Your task to perform on an android device: Open network settings Image 0: 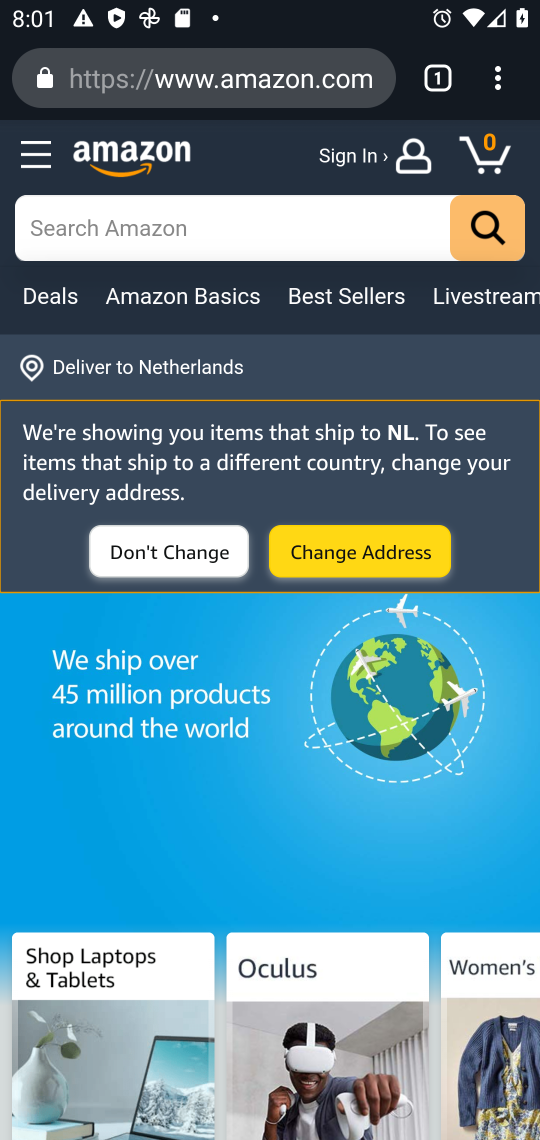
Step 0: press home button
Your task to perform on an android device: Open network settings Image 1: 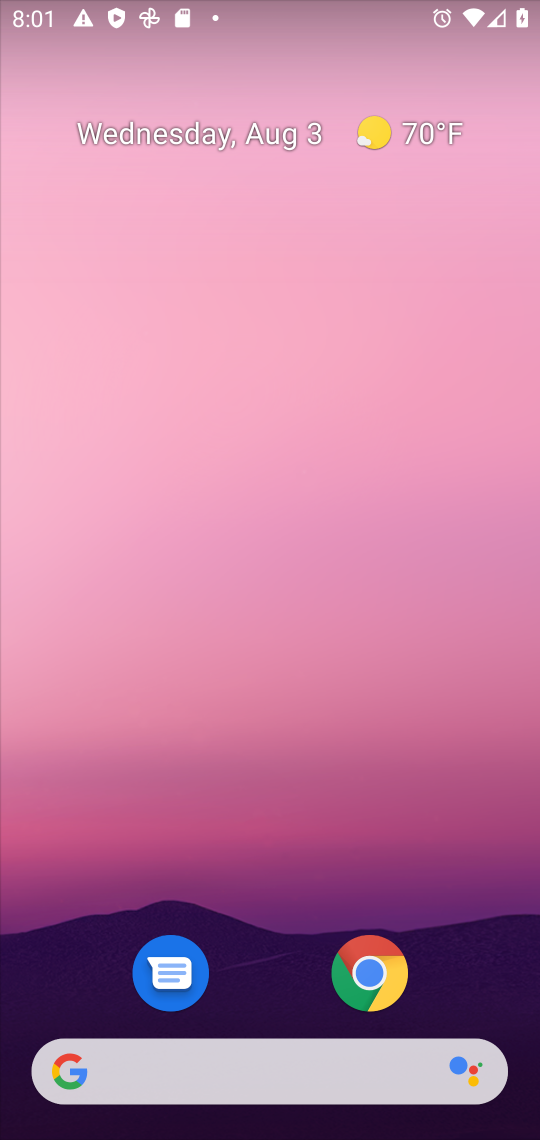
Step 1: click (368, 979)
Your task to perform on an android device: Open network settings Image 2: 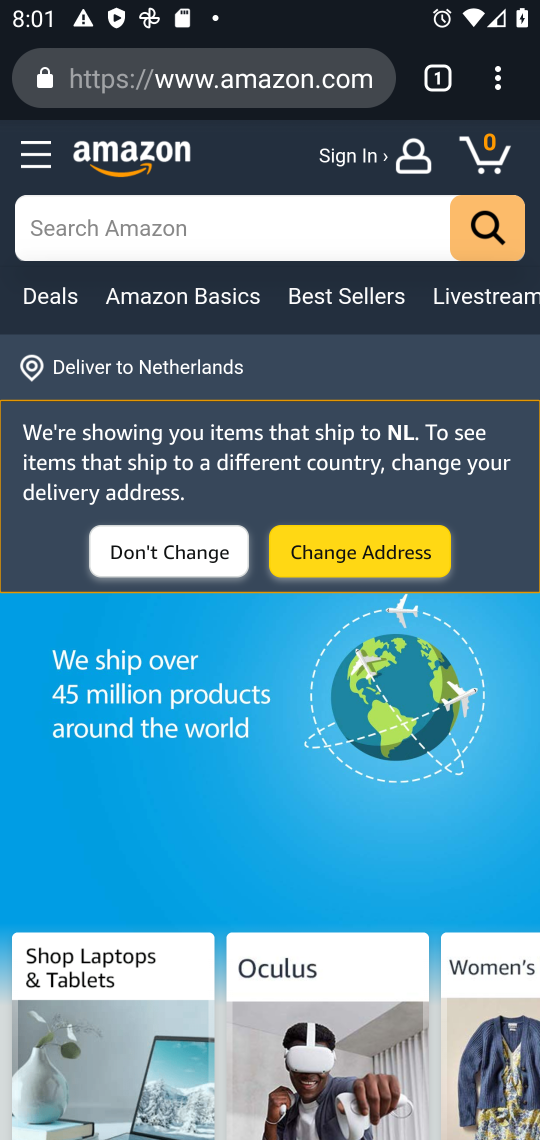
Step 2: press back button
Your task to perform on an android device: Open network settings Image 3: 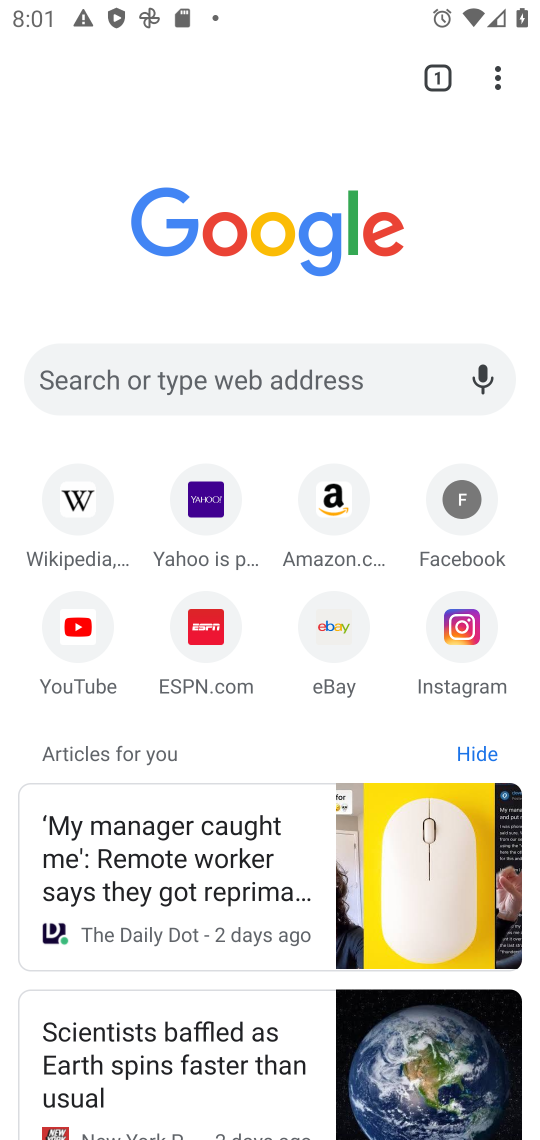
Step 3: press back button
Your task to perform on an android device: Open network settings Image 4: 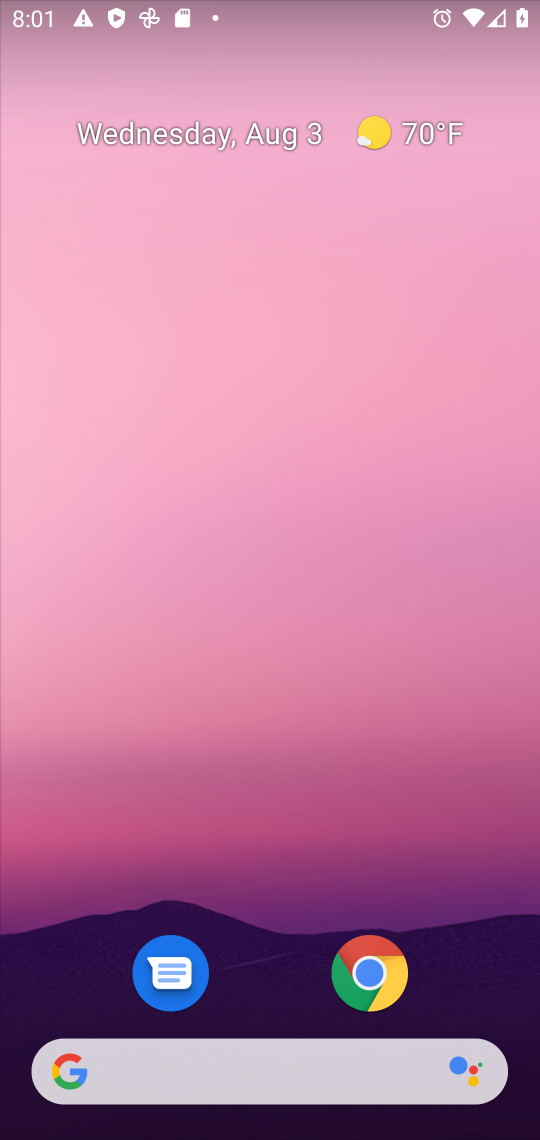
Step 4: drag from (170, 335) to (171, 229)
Your task to perform on an android device: Open network settings Image 5: 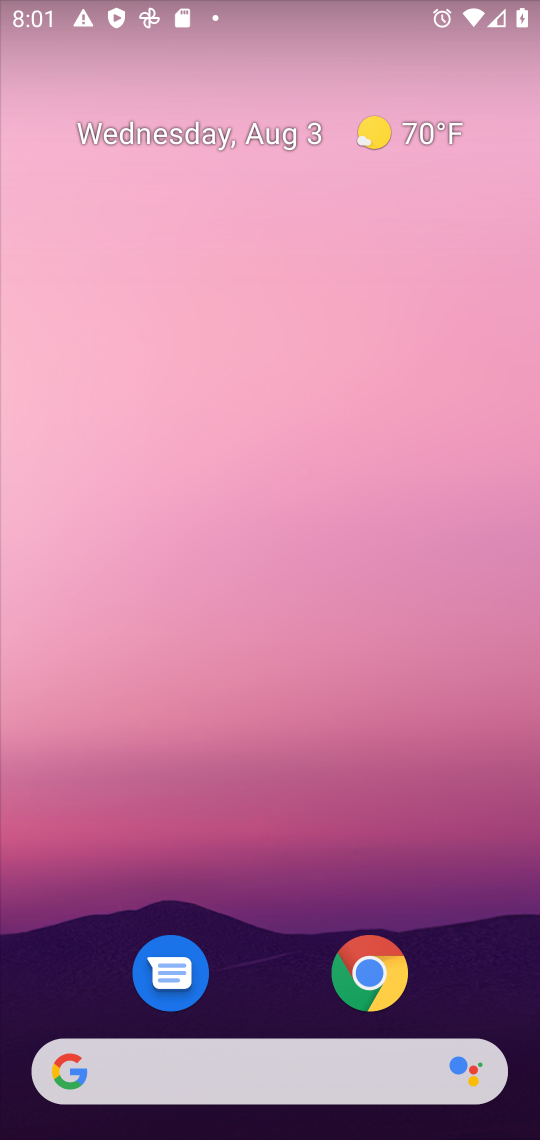
Step 5: click (315, 101)
Your task to perform on an android device: Open network settings Image 6: 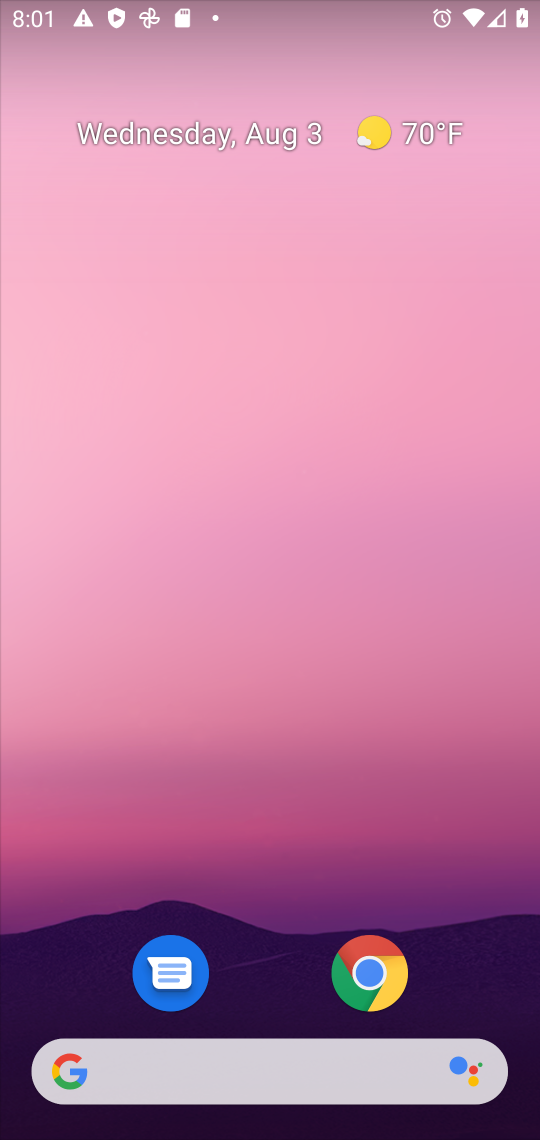
Step 6: drag from (244, 818) to (235, 270)
Your task to perform on an android device: Open network settings Image 7: 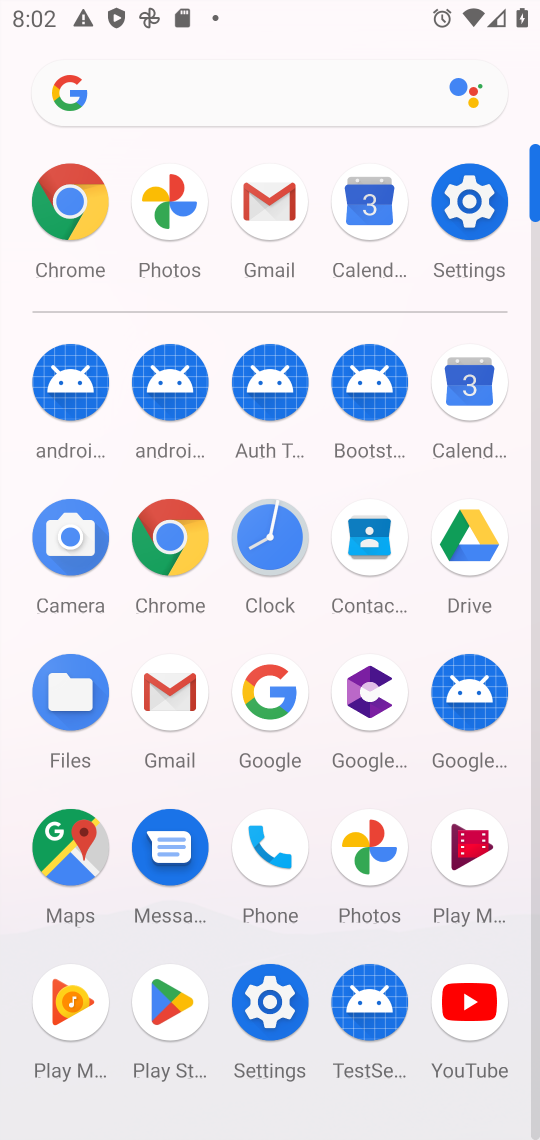
Step 7: click (491, 184)
Your task to perform on an android device: Open network settings Image 8: 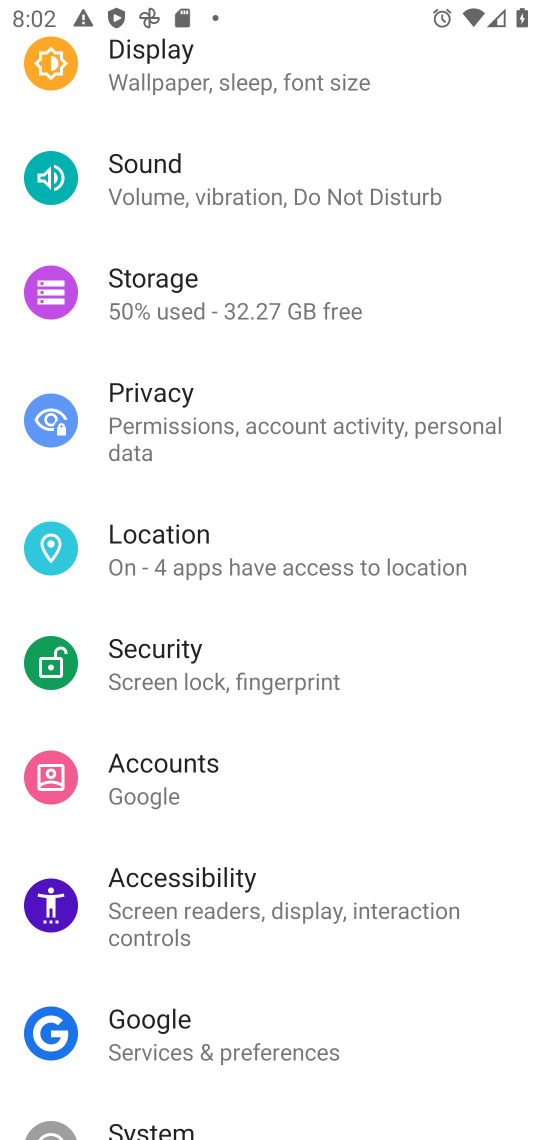
Step 8: drag from (267, 260) to (265, 880)
Your task to perform on an android device: Open network settings Image 9: 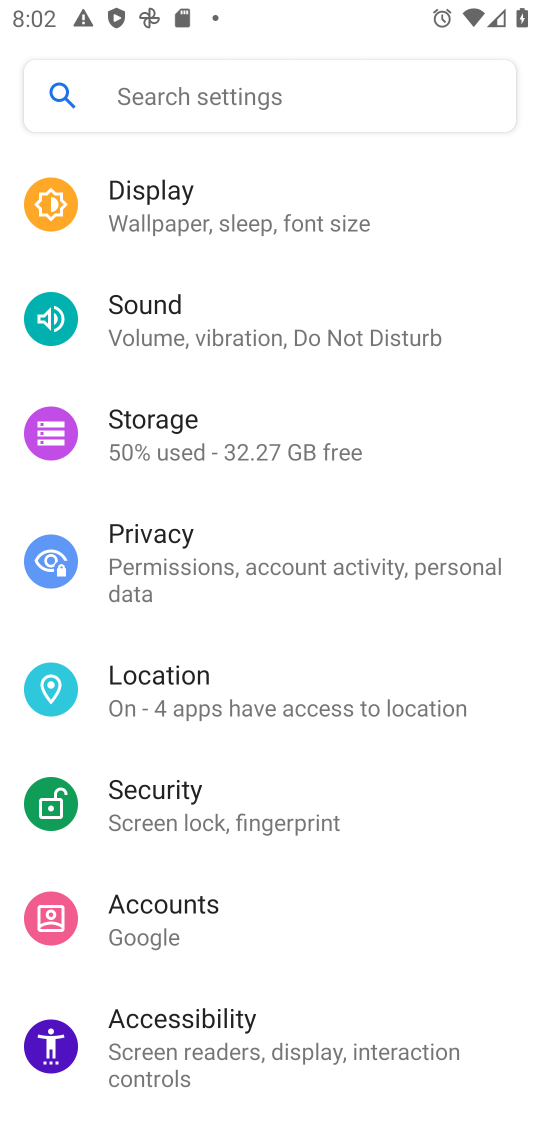
Step 9: drag from (237, 447) to (160, 1075)
Your task to perform on an android device: Open network settings Image 10: 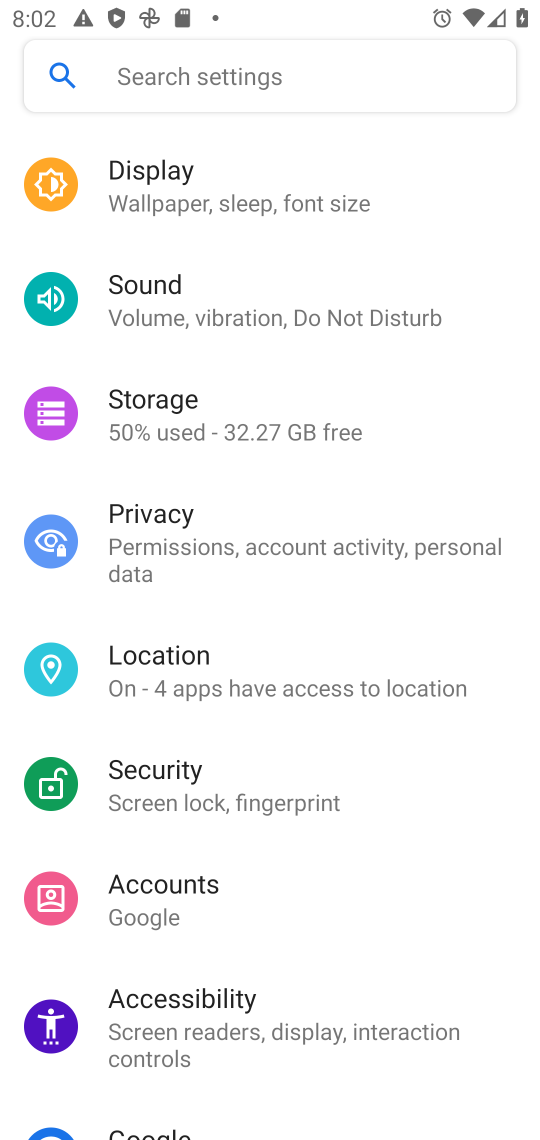
Step 10: click (202, 958)
Your task to perform on an android device: Open network settings Image 11: 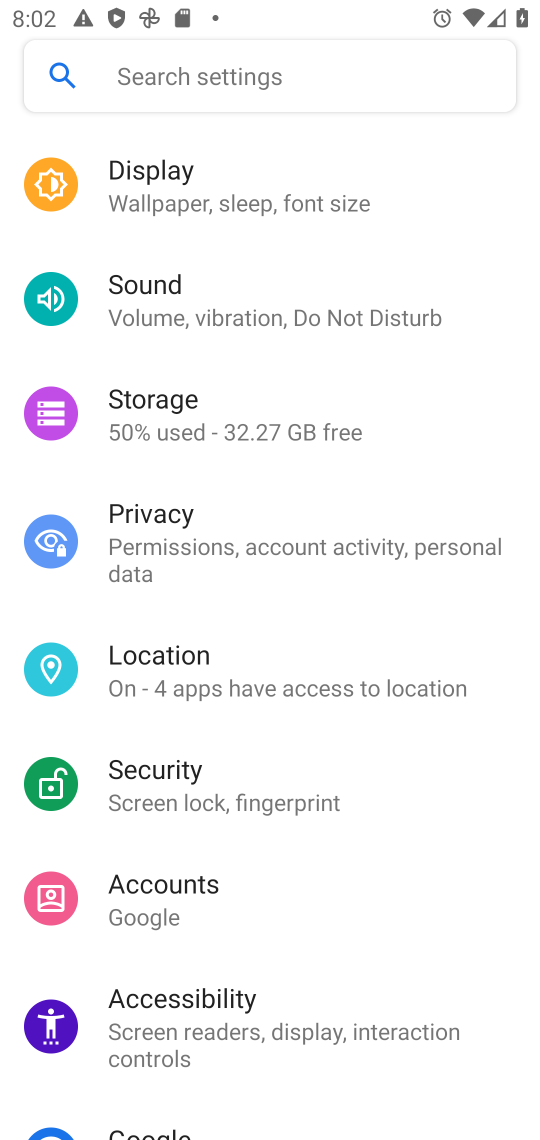
Step 11: drag from (156, 857) to (242, 1019)
Your task to perform on an android device: Open network settings Image 12: 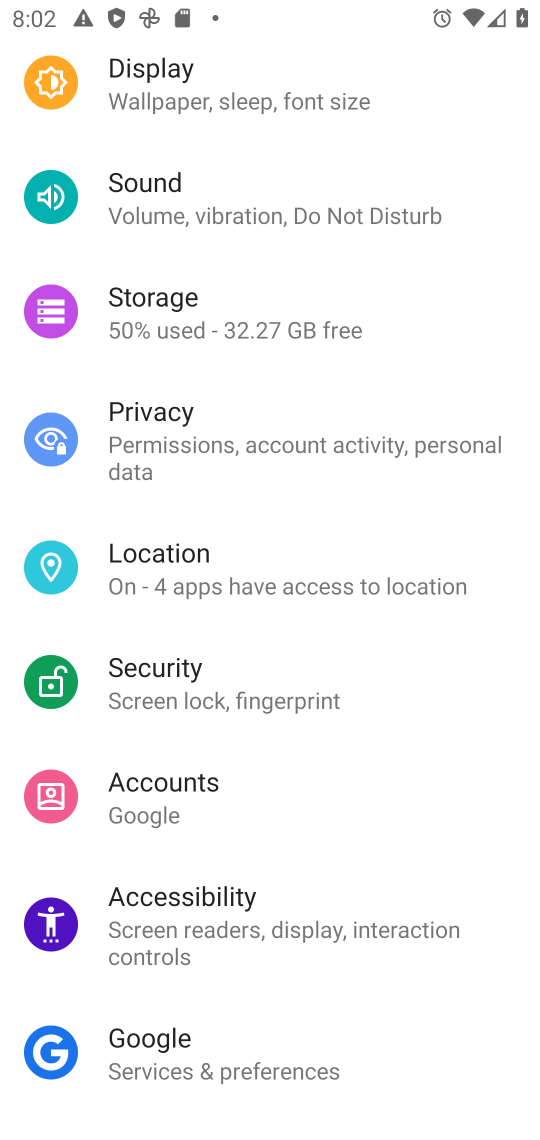
Step 12: drag from (316, 426) to (307, 679)
Your task to perform on an android device: Open network settings Image 13: 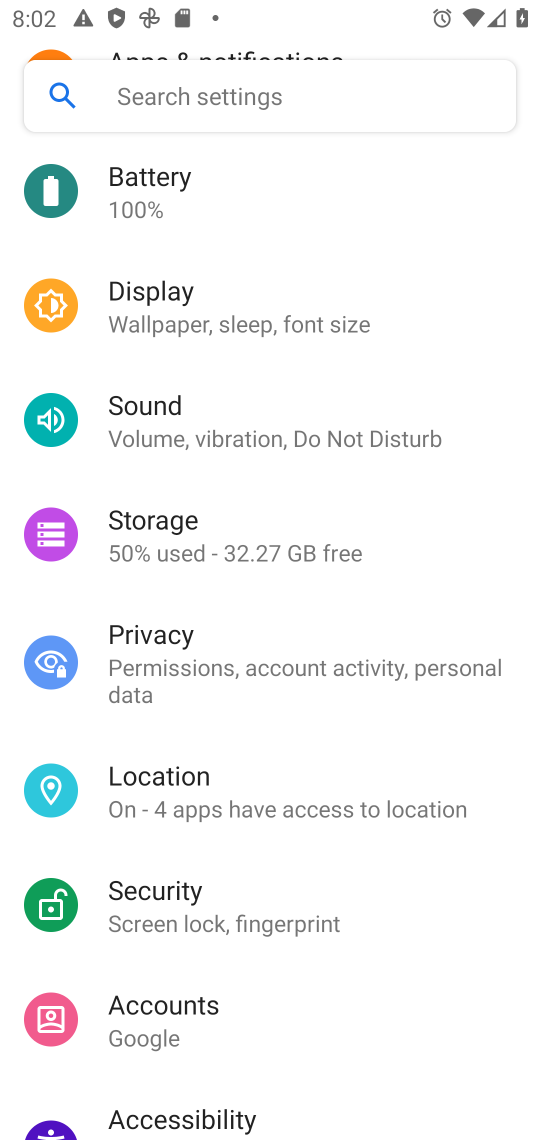
Step 13: drag from (264, 151) to (241, 624)
Your task to perform on an android device: Open network settings Image 14: 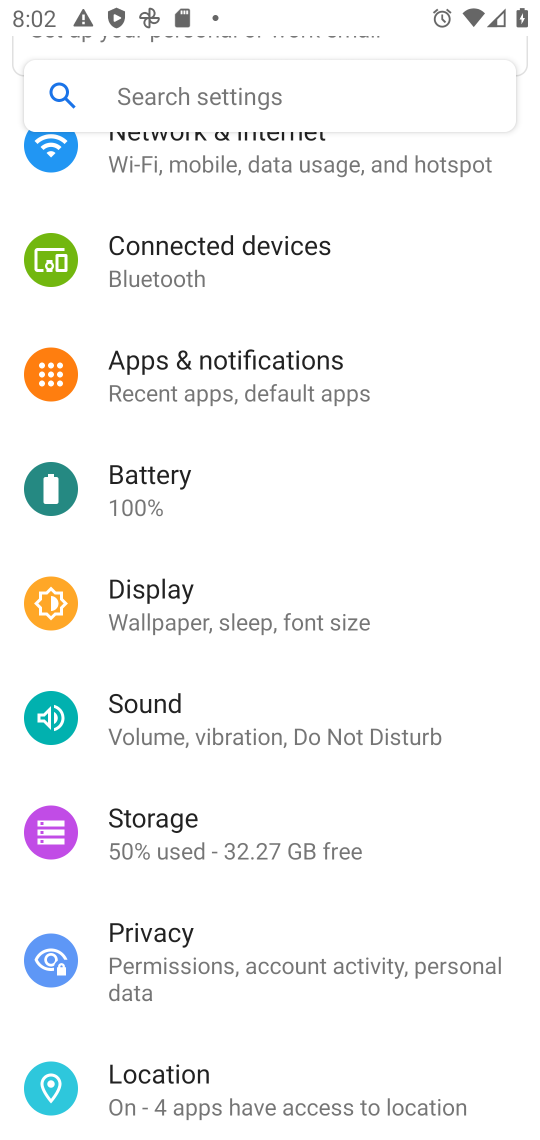
Step 14: click (224, 149)
Your task to perform on an android device: Open network settings Image 15: 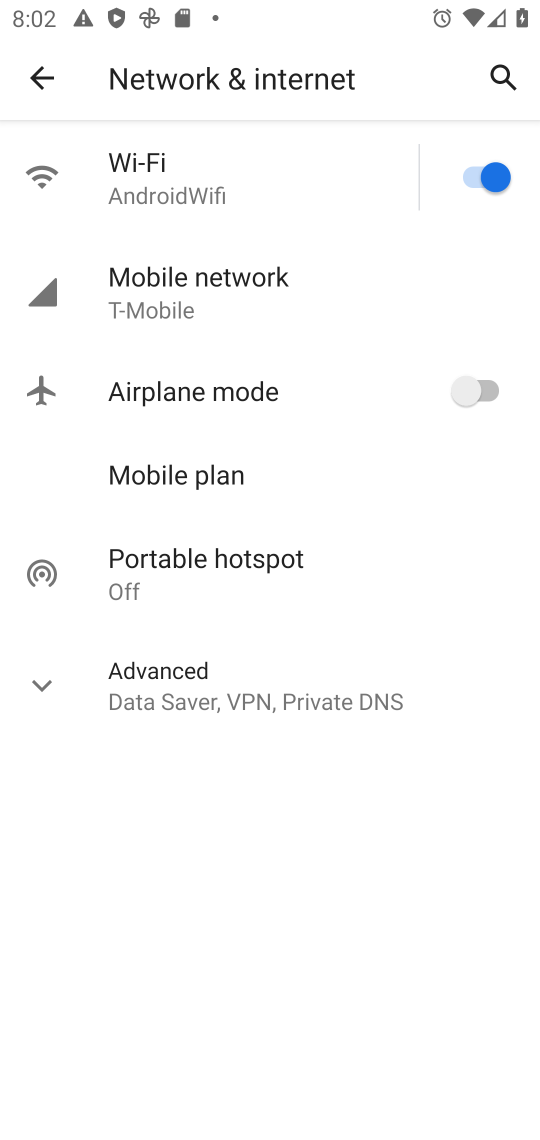
Step 15: task complete